Your task to perform on an android device: When is my next meeting? Image 0: 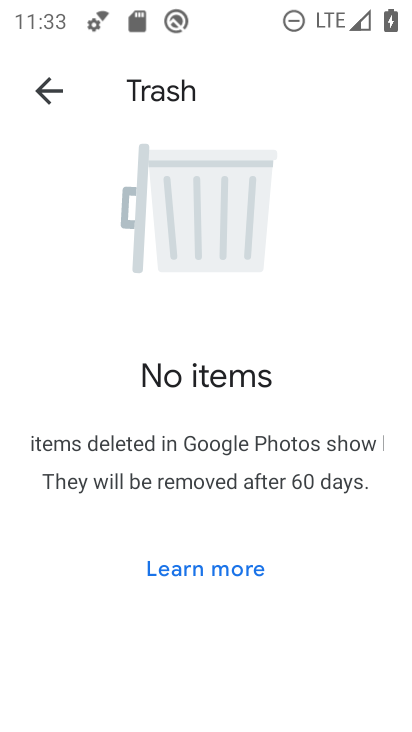
Step 0: press home button
Your task to perform on an android device: When is my next meeting? Image 1: 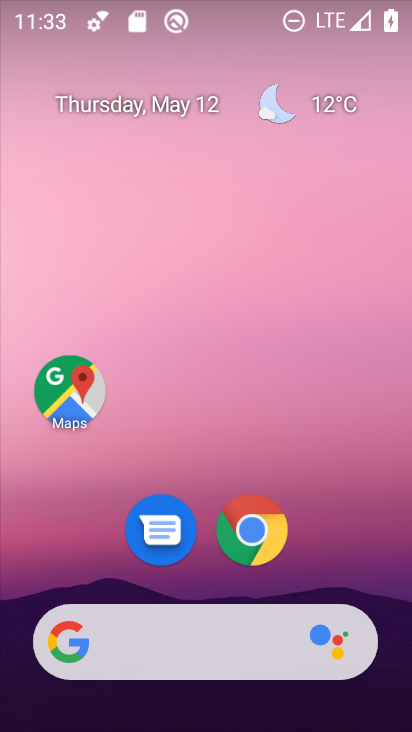
Step 1: drag from (210, 641) to (351, 120)
Your task to perform on an android device: When is my next meeting? Image 2: 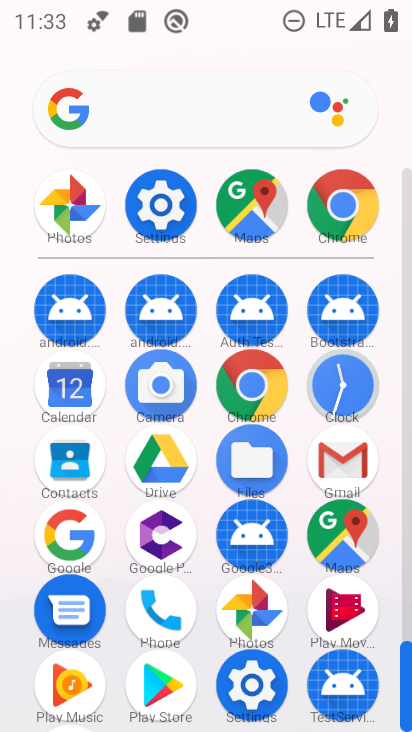
Step 2: click (77, 387)
Your task to perform on an android device: When is my next meeting? Image 3: 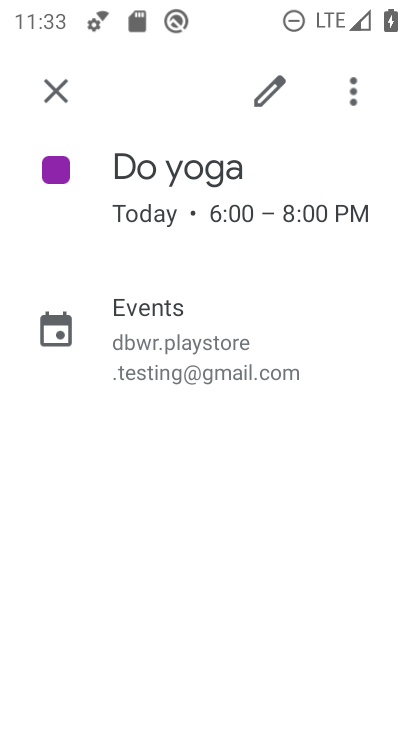
Step 3: click (57, 88)
Your task to perform on an android device: When is my next meeting? Image 4: 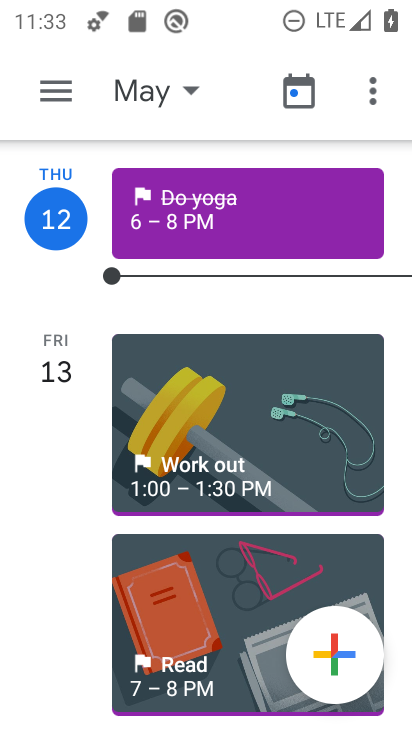
Step 4: click (137, 93)
Your task to perform on an android device: When is my next meeting? Image 5: 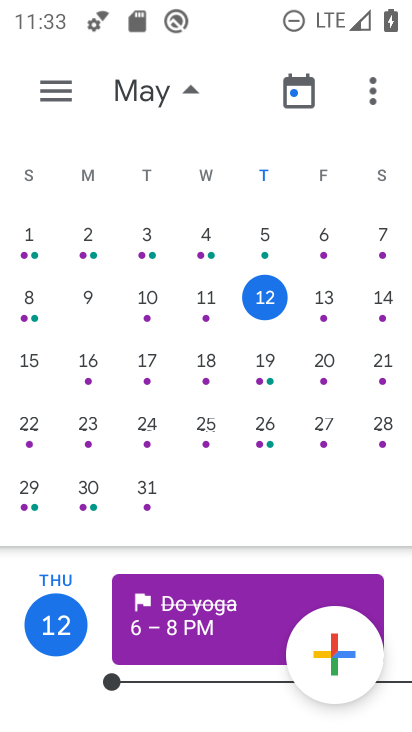
Step 5: click (60, 80)
Your task to perform on an android device: When is my next meeting? Image 6: 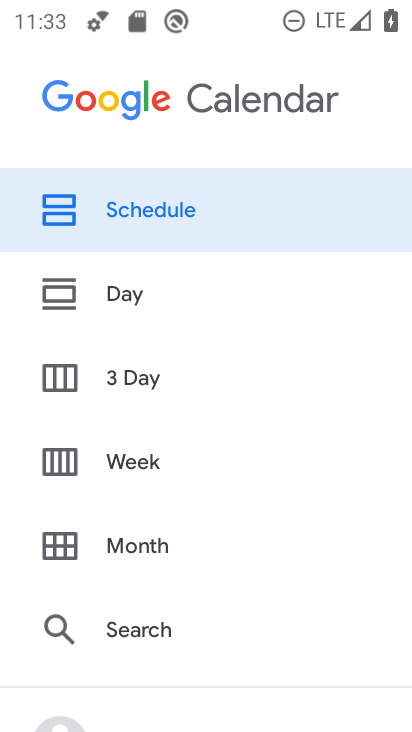
Step 6: click (133, 202)
Your task to perform on an android device: When is my next meeting? Image 7: 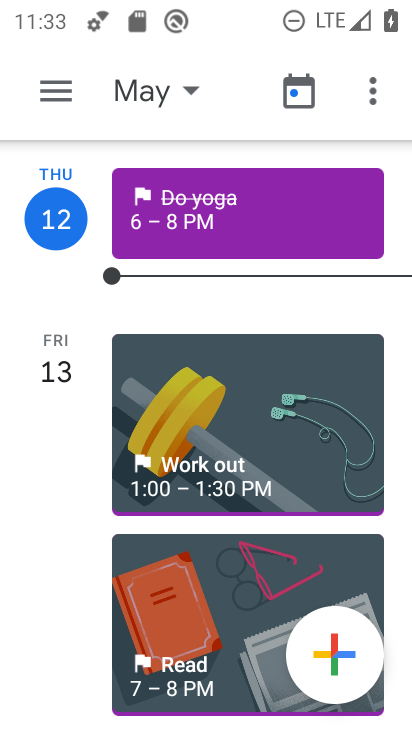
Step 7: click (187, 227)
Your task to perform on an android device: When is my next meeting? Image 8: 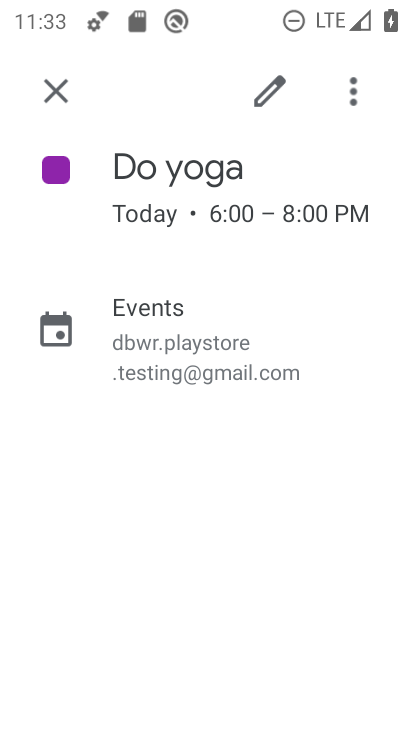
Step 8: task complete